Your task to perform on an android device: turn pop-ups off in chrome Image 0: 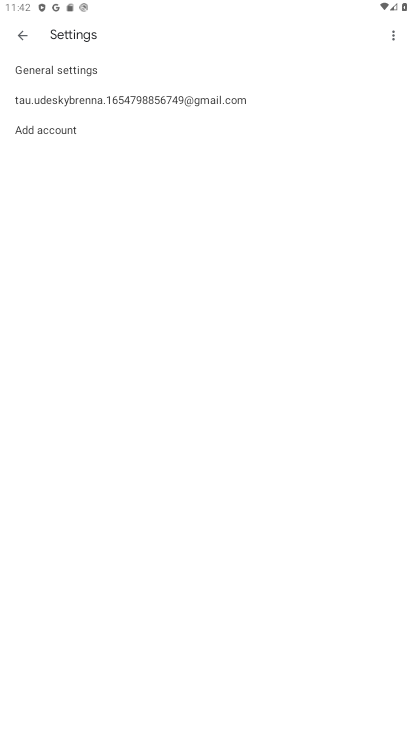
Step 0: press home button
Your task to perform on an android device: turn pop-ups off in chrome Image 1: 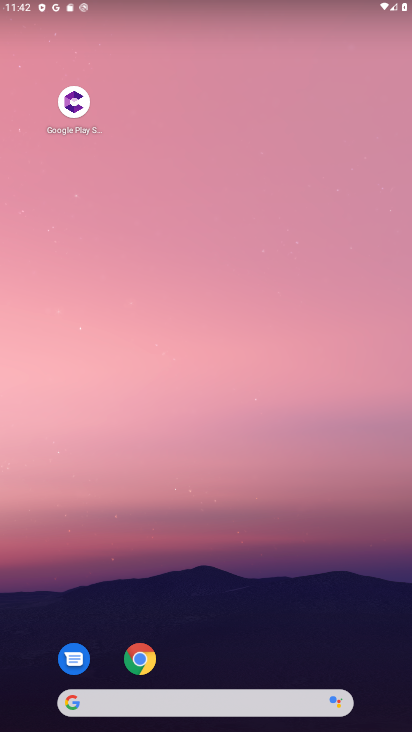
Step 1: drag from (217, 654) to (220, 31)
Your task to perform on an android device: turn pop-ups off in chrome Image 2: 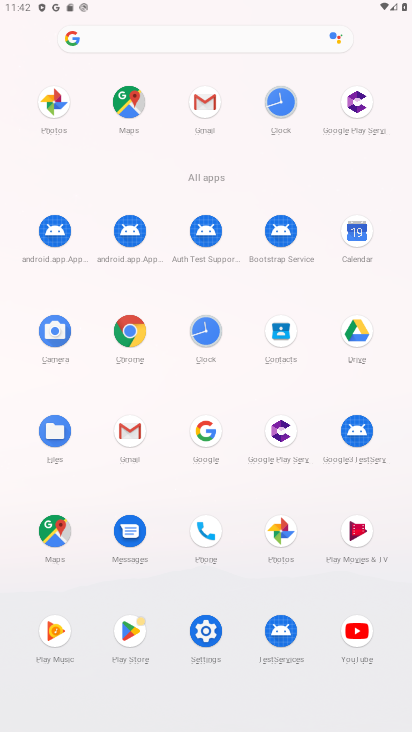
Step 2: click (130, 330)
Your task to perform on an android device: turn pop-ups off in chrome Image 3: 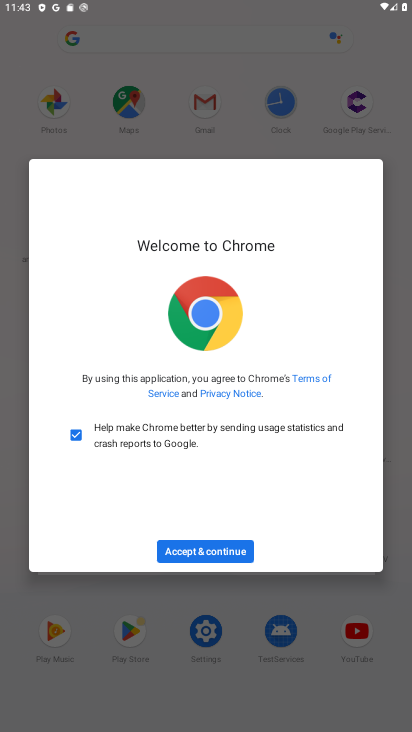
Step 3: click (201, 546)
Your task to perform on an android device: turn pop-ups off in chrome Image 4: 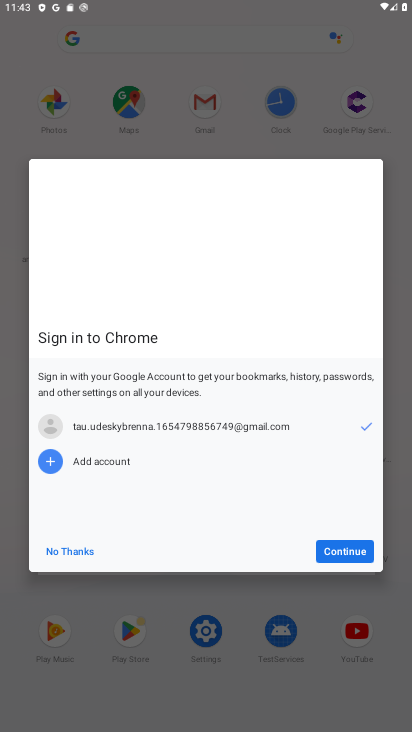
Step 4: click (339, 546)
Your task to perform on an android device: turn pop-ups off in chrome Image 5: 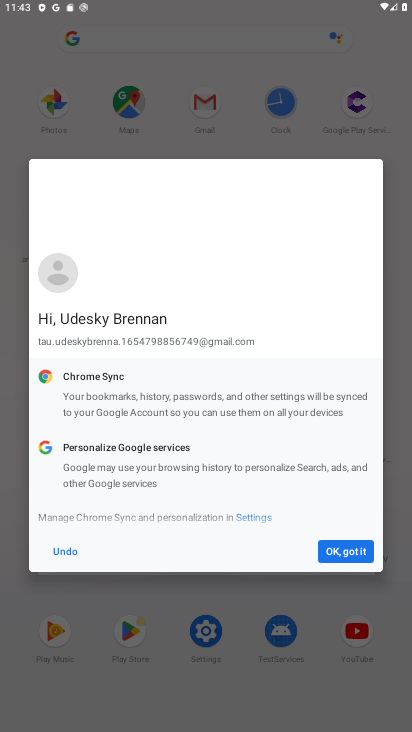
Step 5: click (340, 546)
Your task to perform on an android device: turn pop-ups off in chrome Image 6: 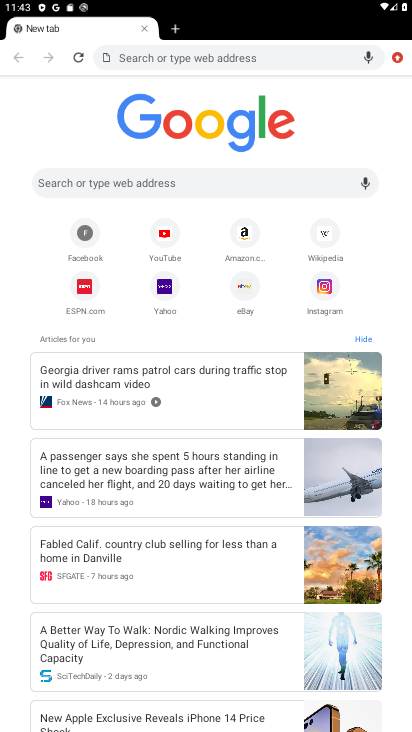
Step 6: click (397, 55)
Your task to perform on an android device: turn pop-ups off in chrome Image 7: 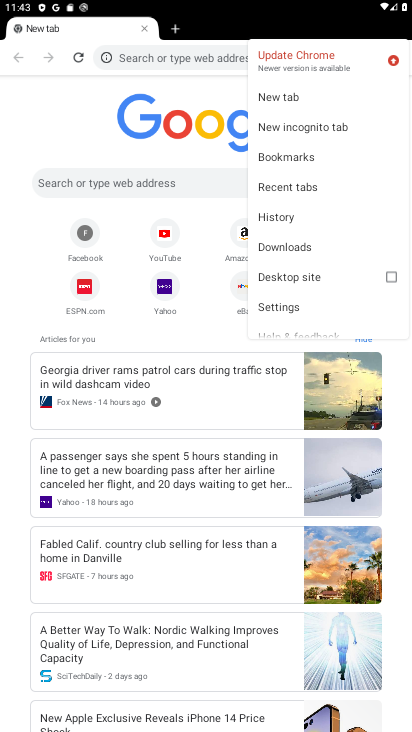
Step 7: click (303, 302)
Your task to perform on an android device: turn pop-ups off in chrome Image 8: 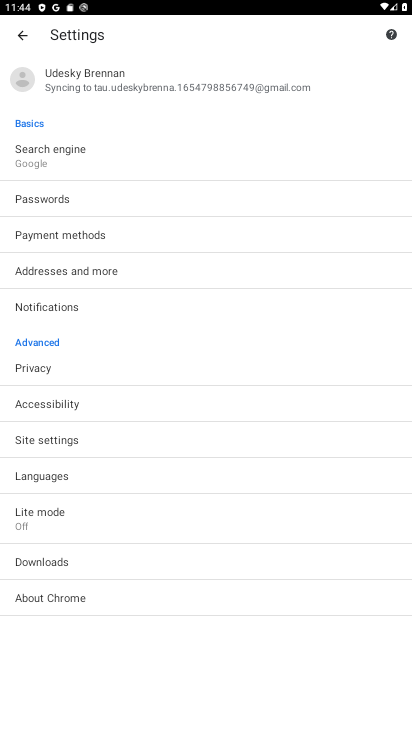
Step 8: click (89, 438)
Your task to perform on an android device: turn pop-ups off in chrome Image 9: 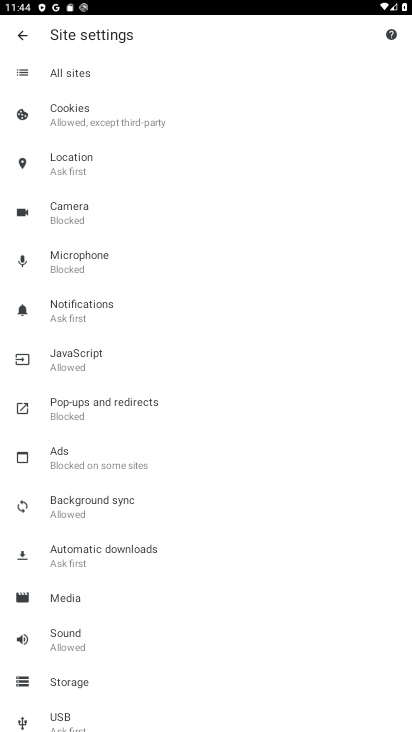
Step 9: click (100, 407)
Your task to perform on an android device: turn pop-ups off in chrome Image 10: 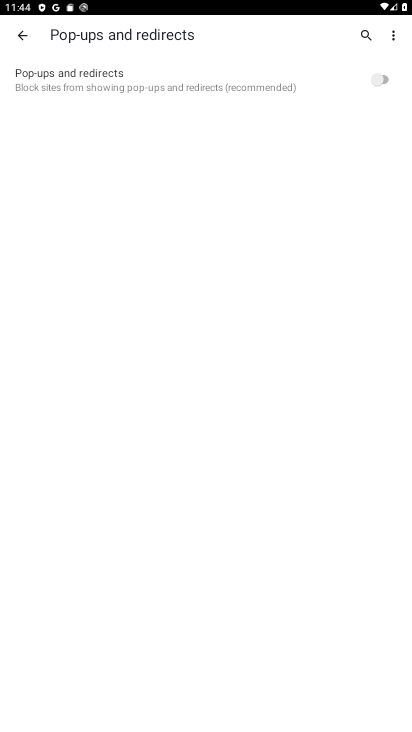
Step 10: task complete